Your task to perform on an android device: turn off location history Image 0: 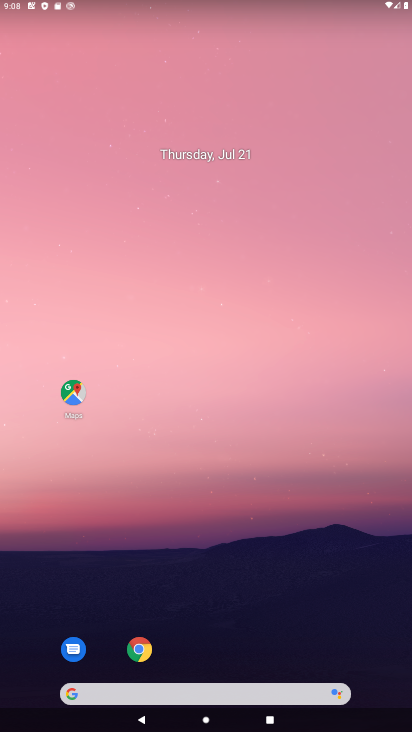
Step 0: drag from (211, 665) to (207, 235)
Your task to perform on an android device: turn off location history Image 1: 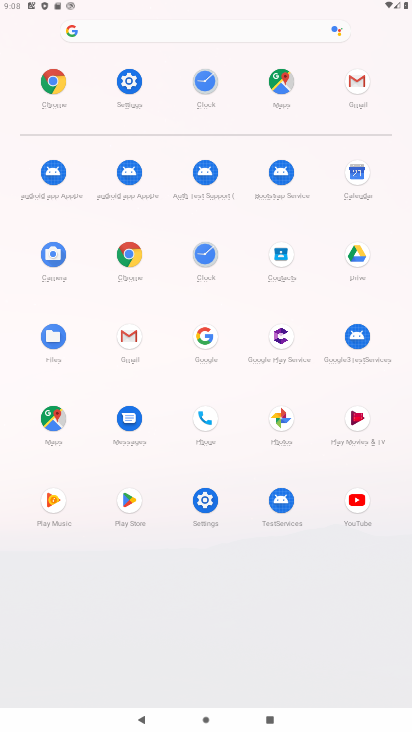
Step 1: click (202, 514)
Your task to perform on an android device: turn off location history Image 2: 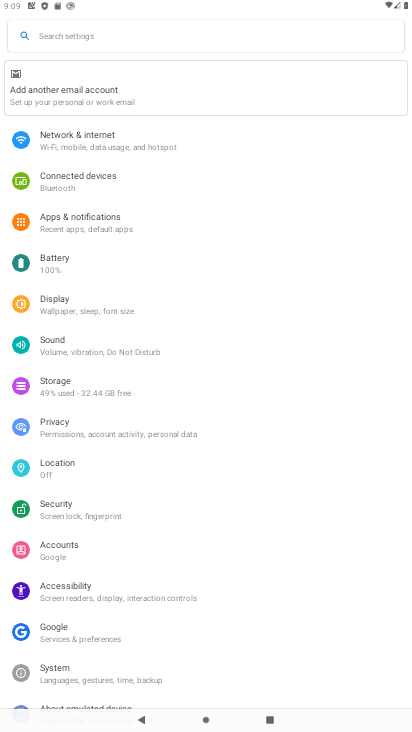
Step 2: click (85, 461)
Your task to perform on an android device: turn off location history Image 3: 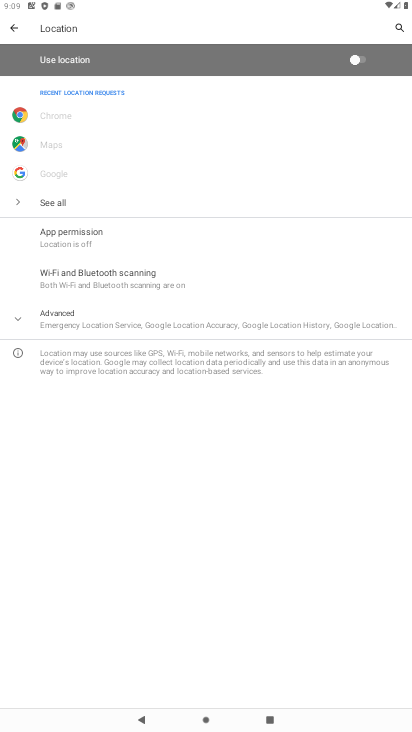
Step 3: click (121, 306)
Your task to perform on an android device: turn off location history Image 4: 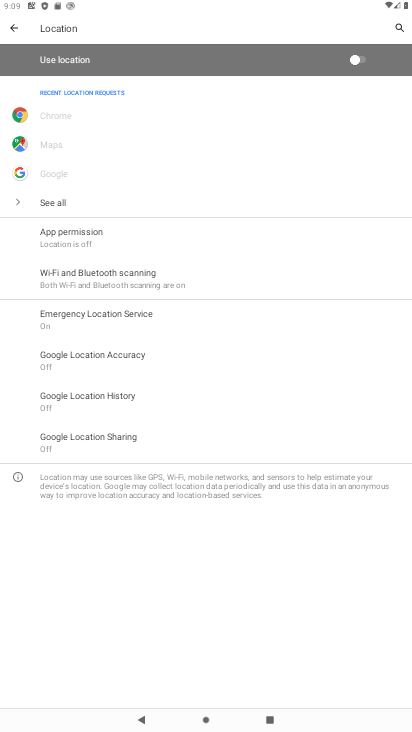
Step 4: click (127, 395)
Your task to perform on an android device: turn off location history Image 5: 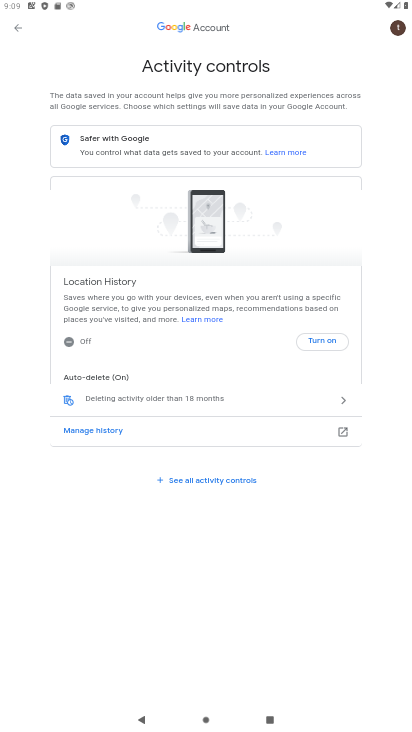
Step 5: task complete